Your task to perform on an android device: Is it going to rain today? Image 0: 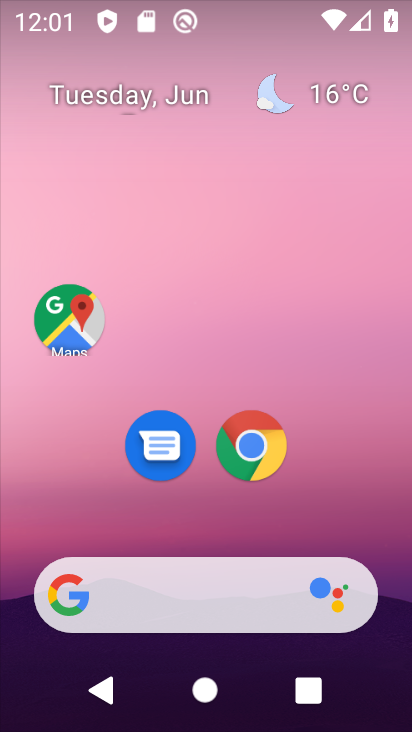
Step 0: click (341, 93)
Your task to perform on an android device: Is it going to rain today? Image 1: 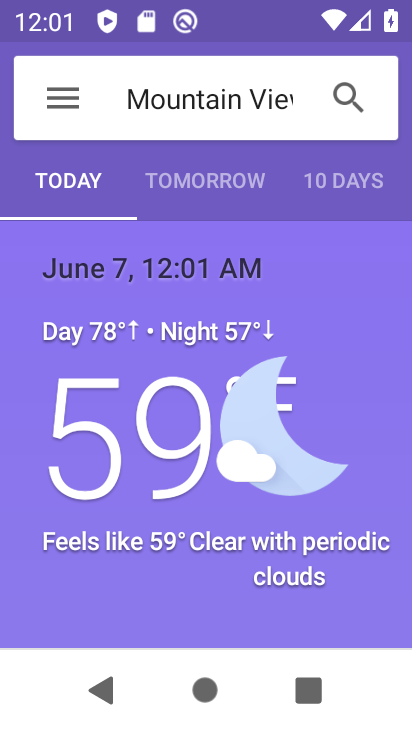
Step 1: task complete